Your task to perform on an android device: Is it going to rain this weekend? Image 0: 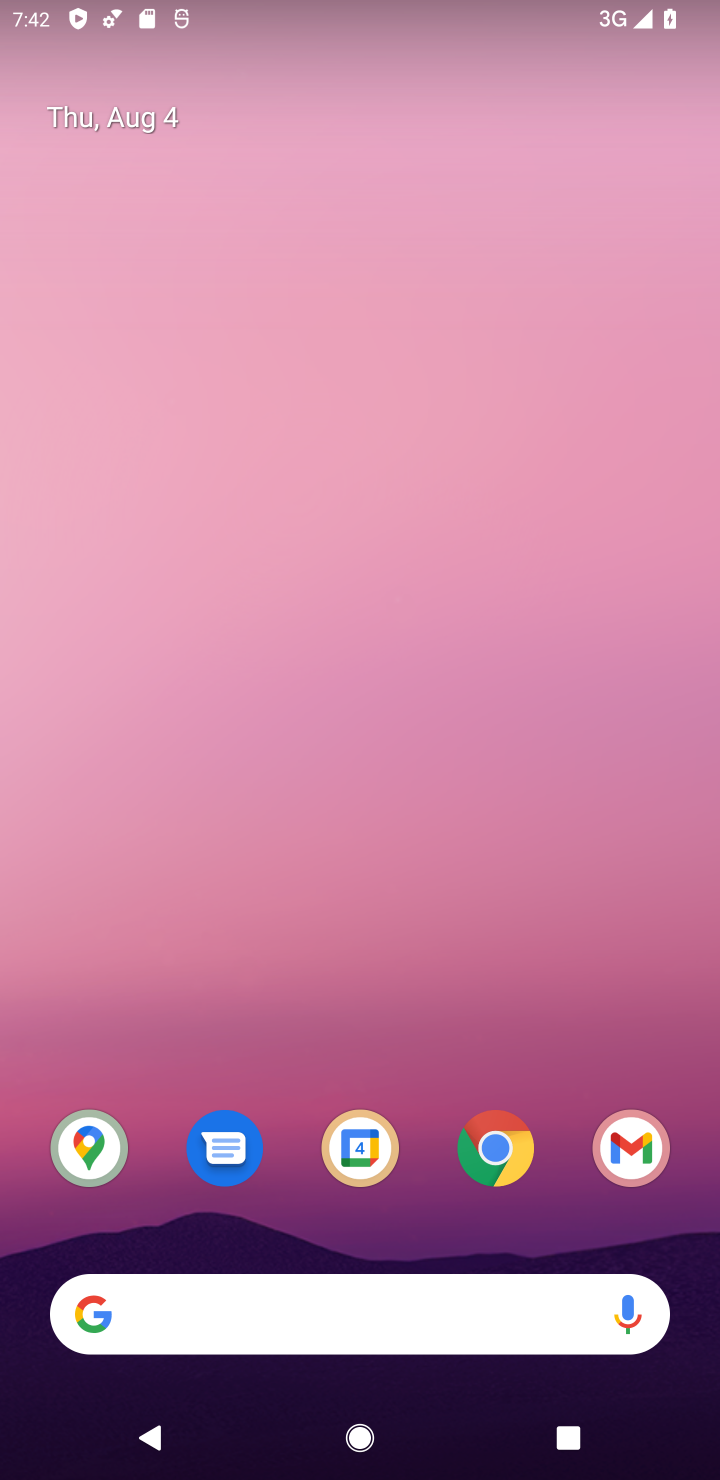
Step 0: click (491, 1190)
Your task to perform on an android device: Is it going to rain this weekend? Image 1: 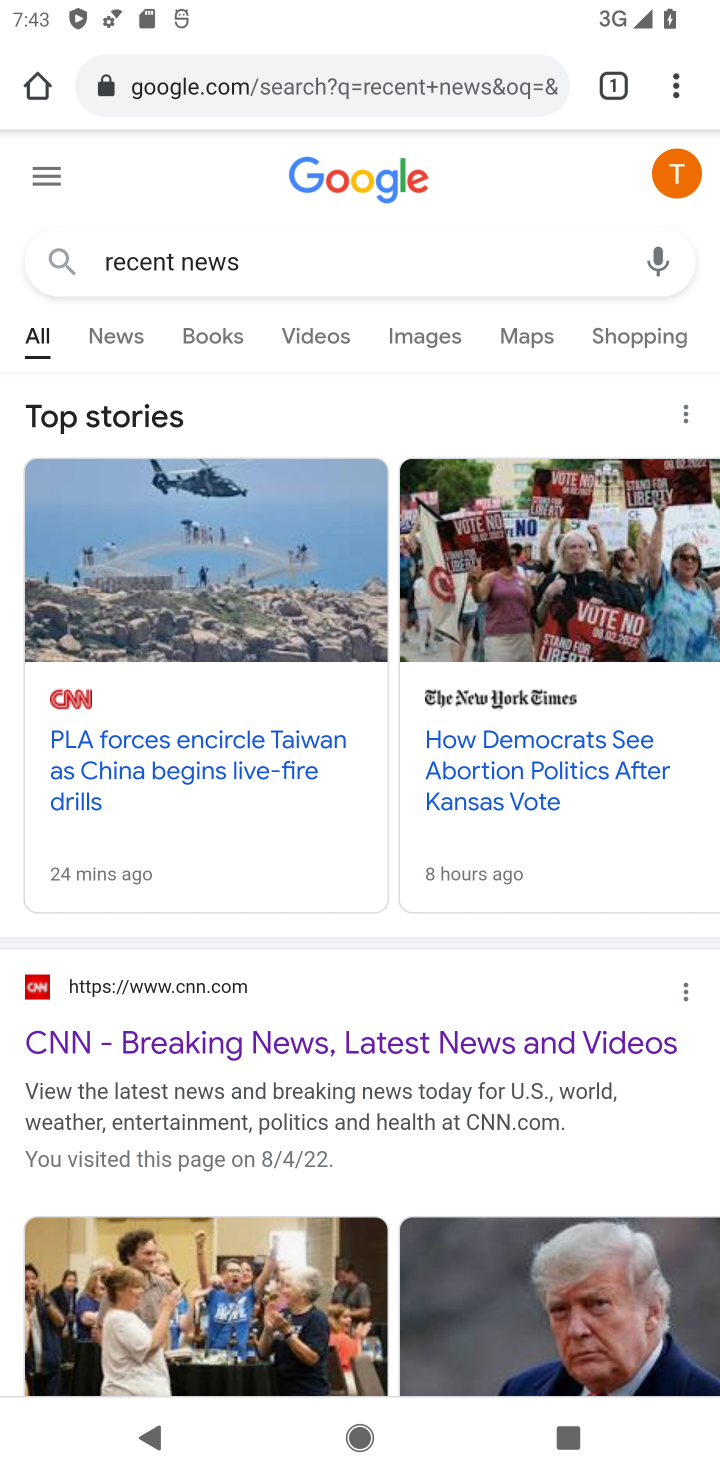
Step 1: click (331, 105)
Your task to perform on an android device: Is it going to rain this weekend? Image 2: 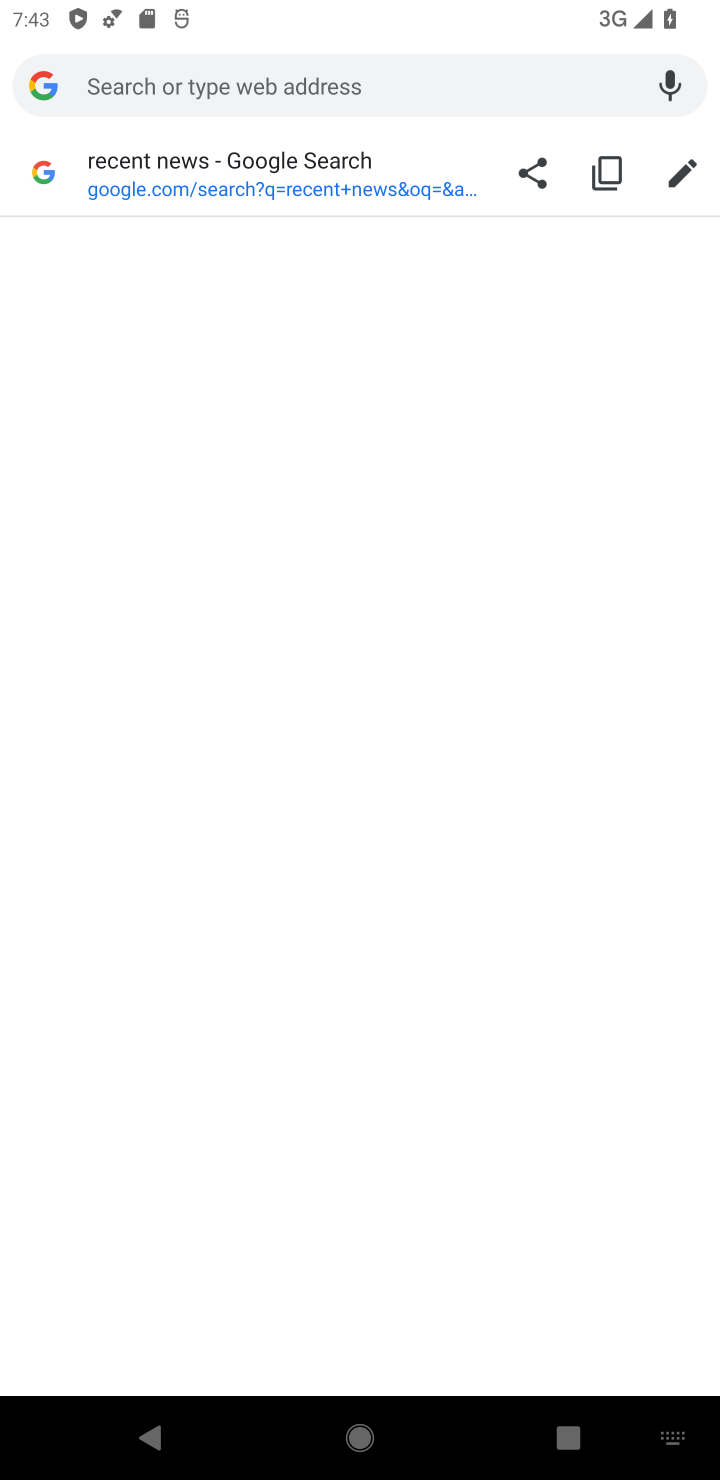
Step 2: type "Is it going to rain this weekend?"
Your task to perform on an android device: Is it going to rain this weekend? Image 3: 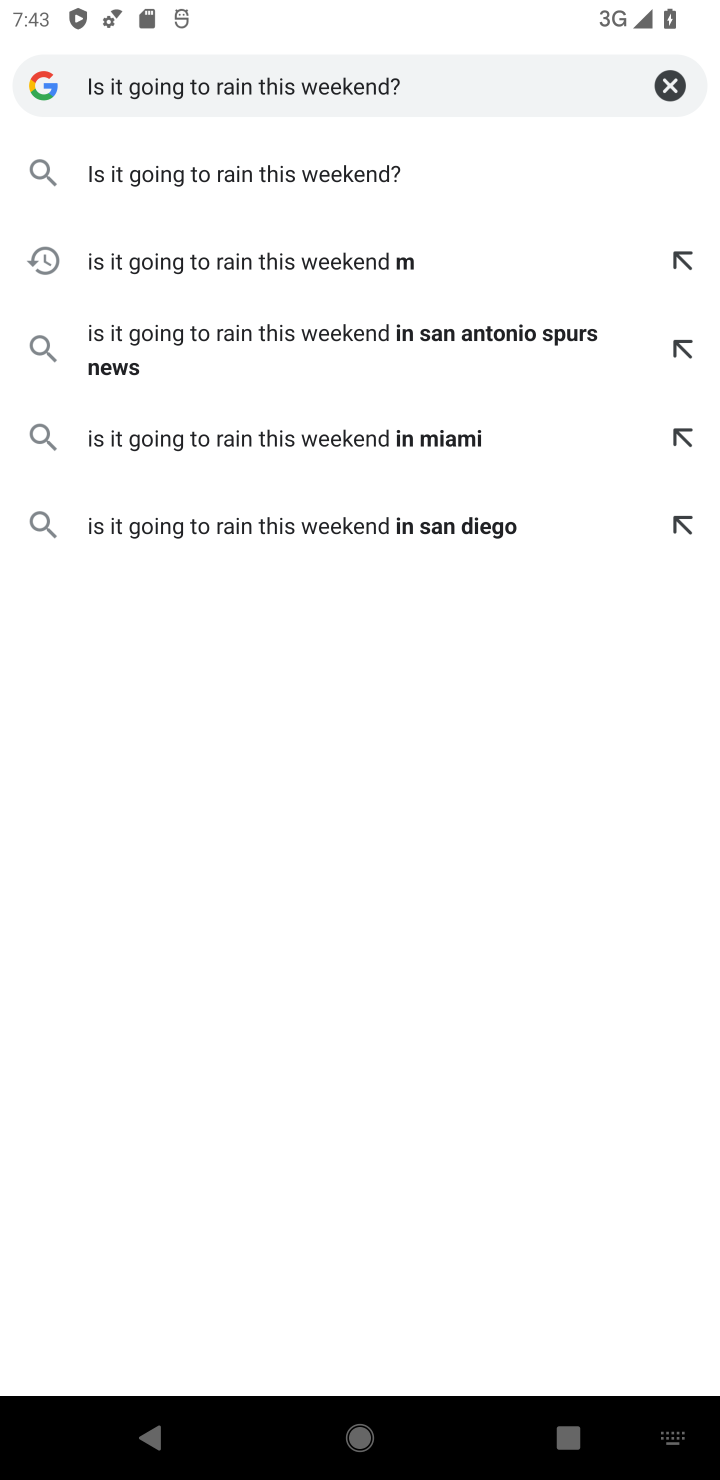
Step 3: click (185, 197)
Your task to perform on an android device: Is it going to rain this weekend? Image 4: 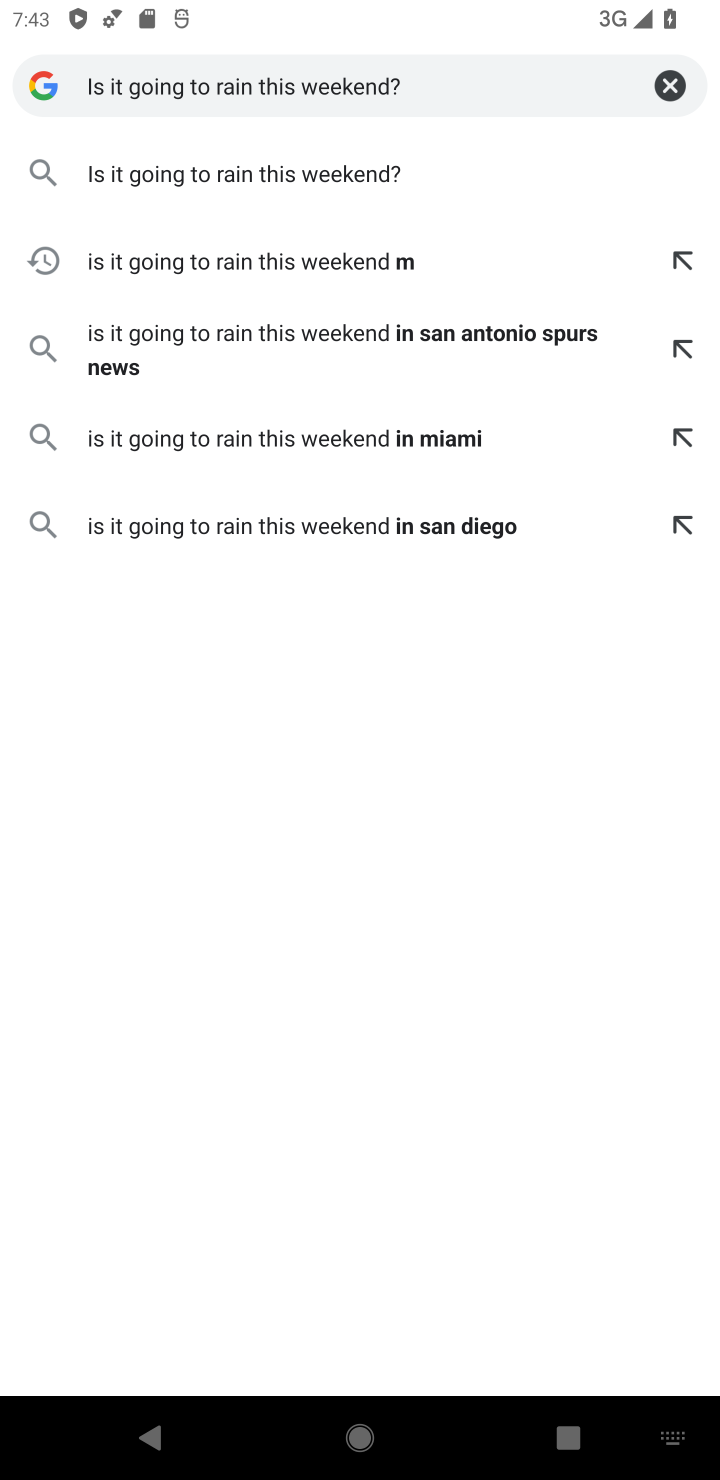
Step 4: click (234, 167)
Your task to perform on an android device: Is it going to rain this weekend? Image 5: 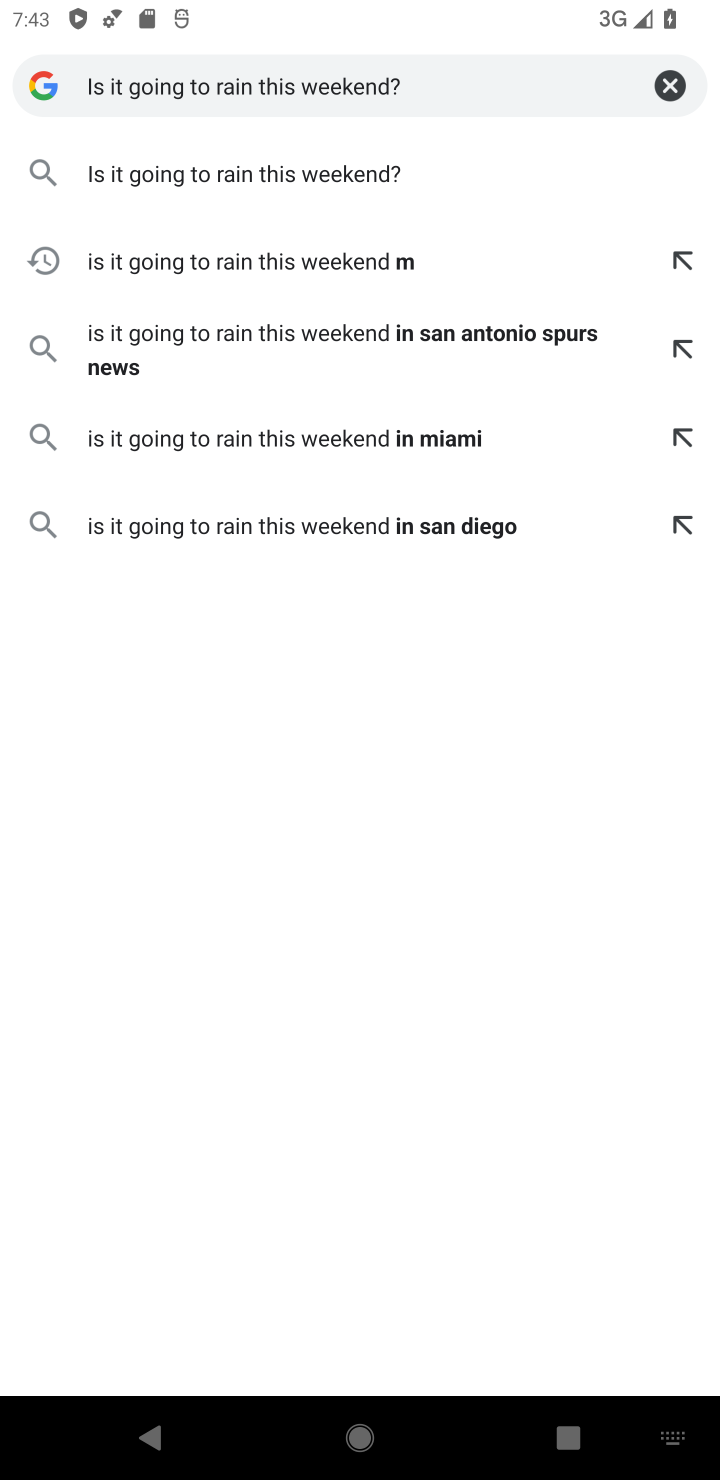
Step 5: click (230, 167)
Your task to perform on an android device: Is it going to rain this weekend? Image 6: 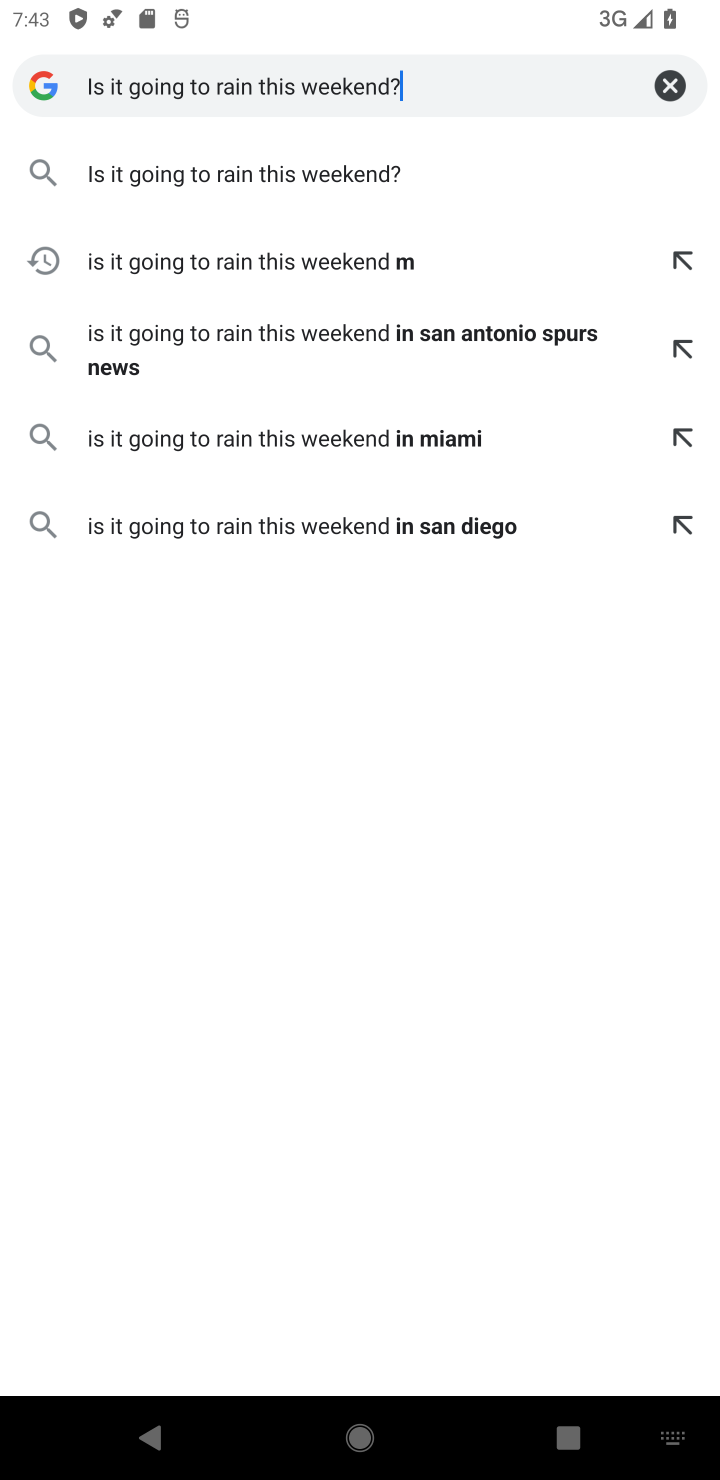
Step 6: press enter
Your task to perform on an android device: Is it going to rain this weekend? Image 7: 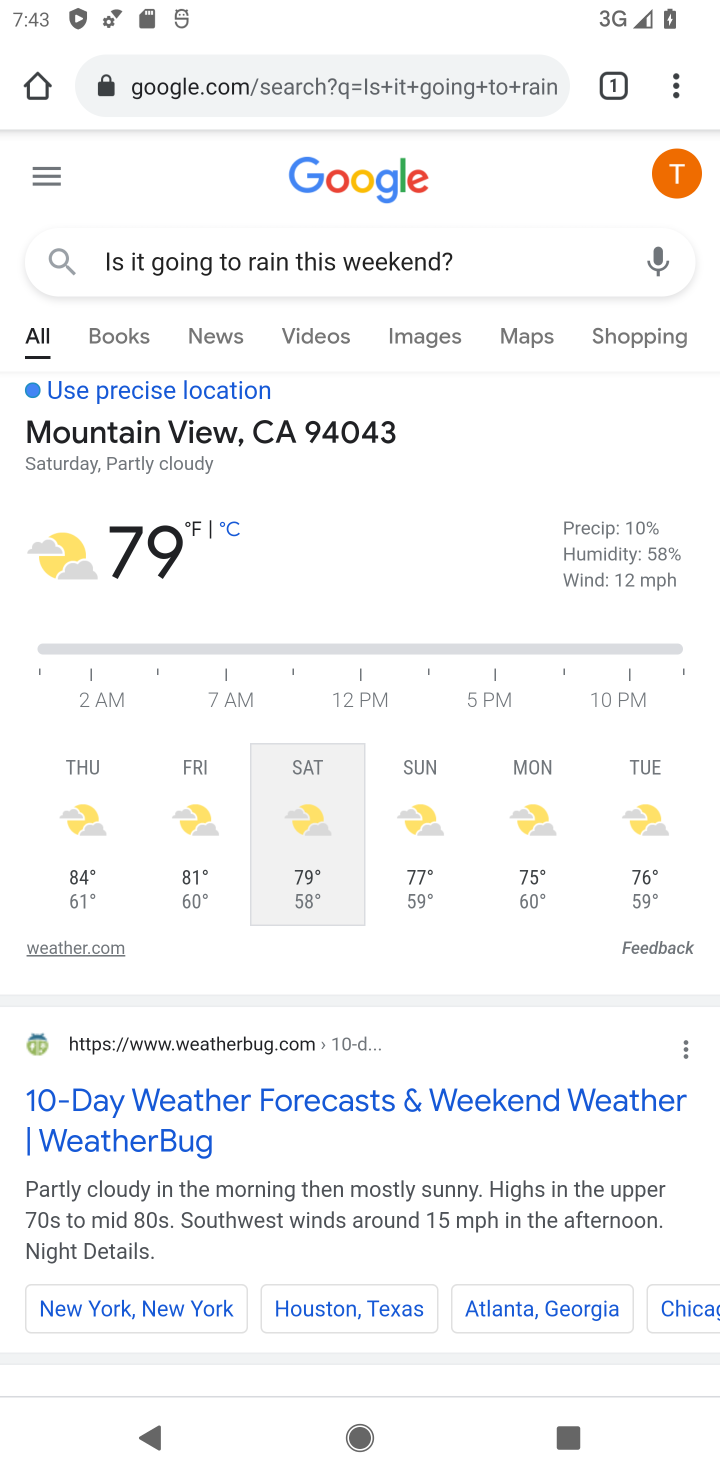
Step 7: task complete